Your task to perform on an android device: Find coffee shops on Maps Image 0: 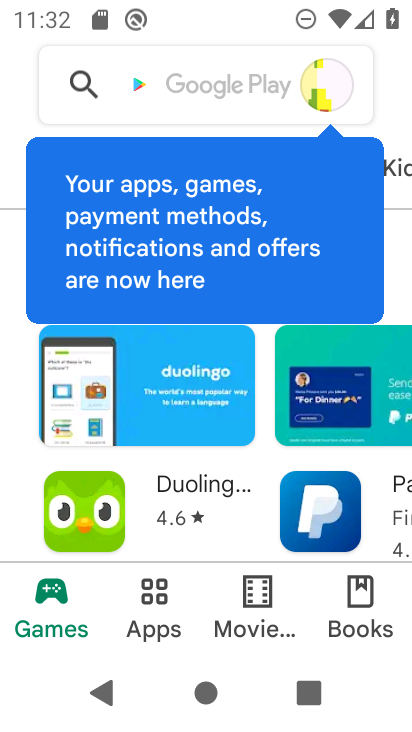
Step 0: press home button
Your task to perform on an android device: Find coffee shops on Maps Image 1: 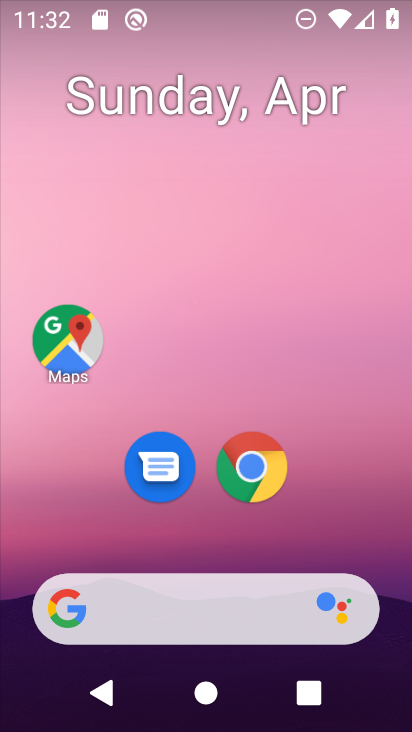
Step 1: drag from (371, 506) to (385, 130)
Your task to perform on an android device: Find coffee shops on Maps Image 2: 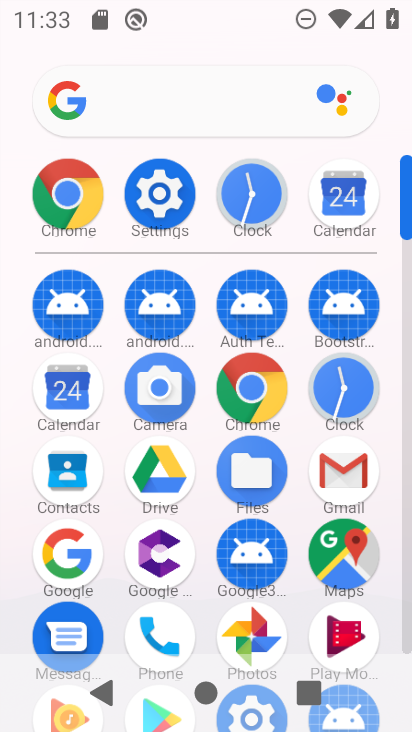
Step 2: click (352, 557)
Your task to perform on an android device: Find coffee shops on Maps Image 3: 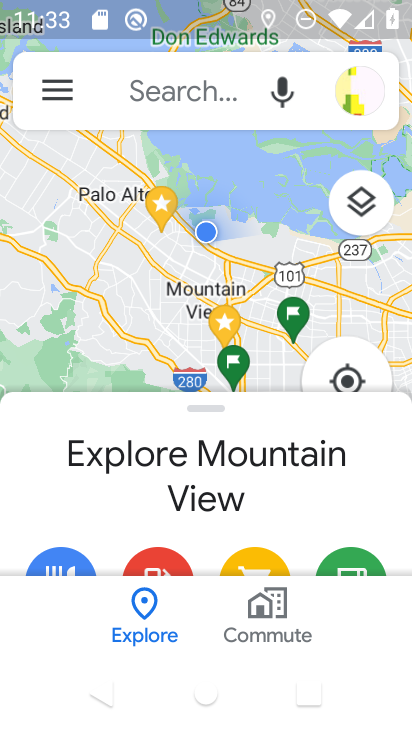
Step 3: click (168, 96)
Your task to perform on an android device: Find coffee shops on Maps Image 4: 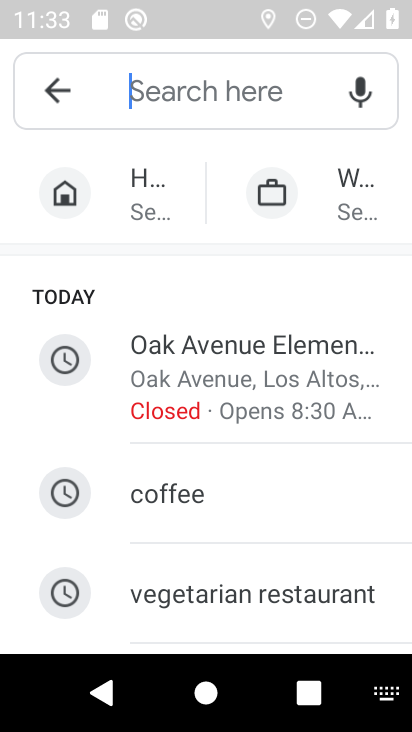
Step 4: type "coffee"
Your task to perform on an android device: Find coffee shops on Maps Image 5: 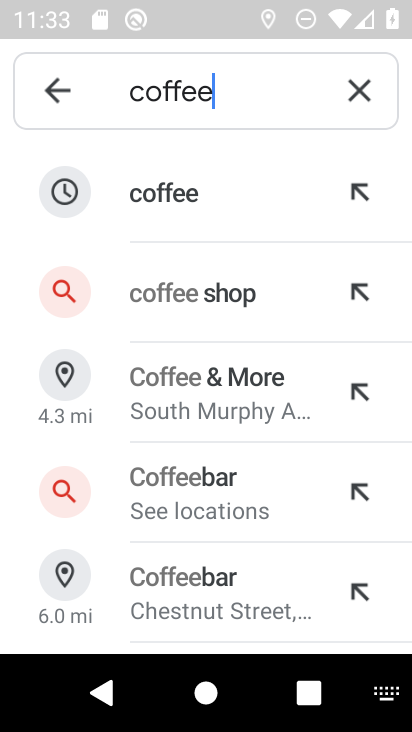
Step 5: click (198, 200)
Your task to perform on an android device: Find coffee shops on Maps Image 6: 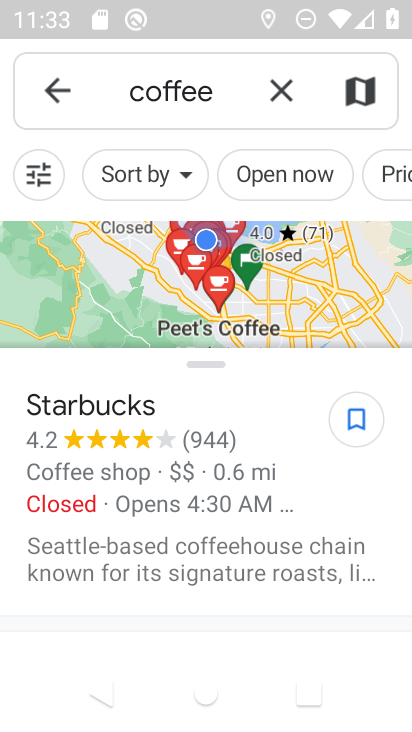
Step 6: task complete